Your task to perform on an android device: check battery use Image 0: 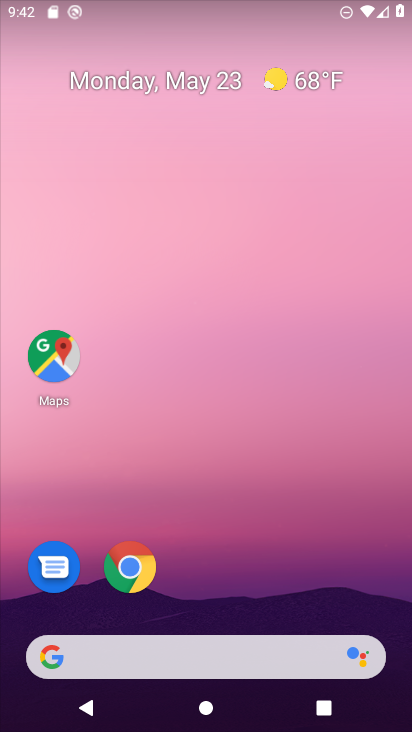
Step 0: drag from (193, 602) to (252, 71)
Your task to perform on an android device: check battery use Image 1: 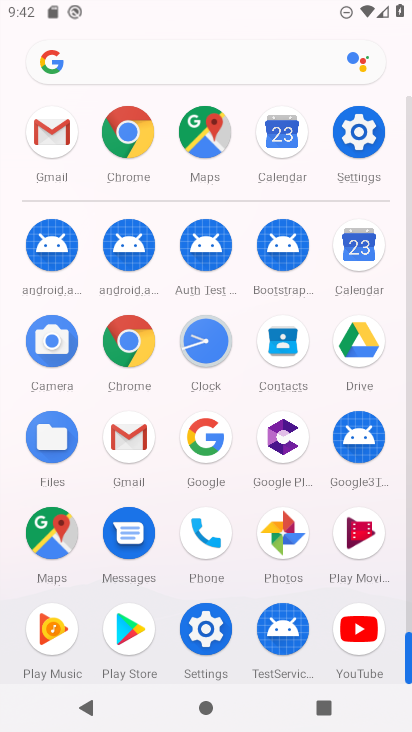
Step 1: click (350, 139)
Your task to perform on an android device: check battery use Image 2: 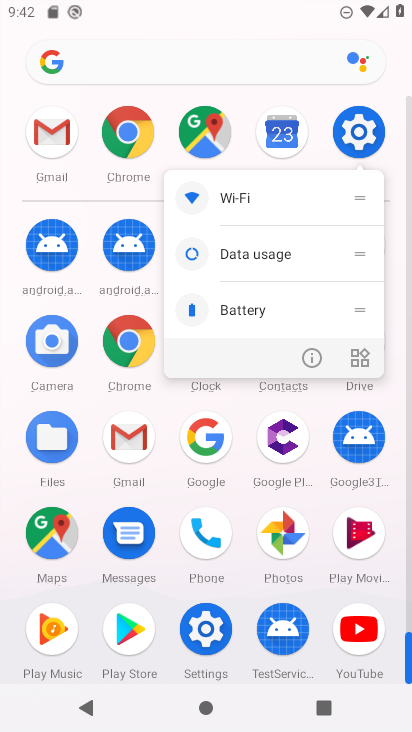
Step 2: click (306, 349)
Your task to perform on an android device: check battery use Image 3: 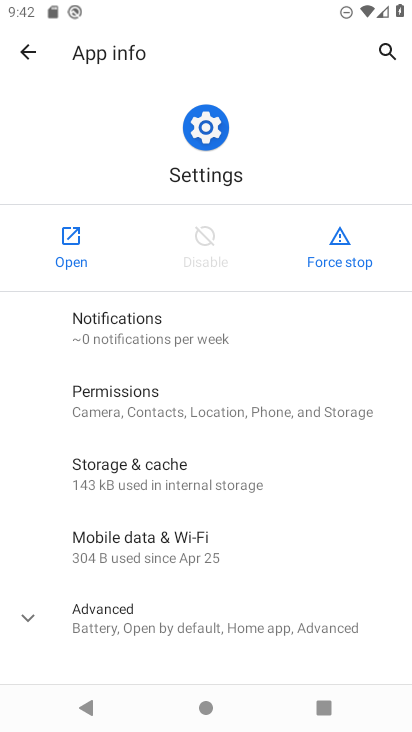
Step 3: click (87, 224)
Your task to perform on an android device: check battery use Image 4: 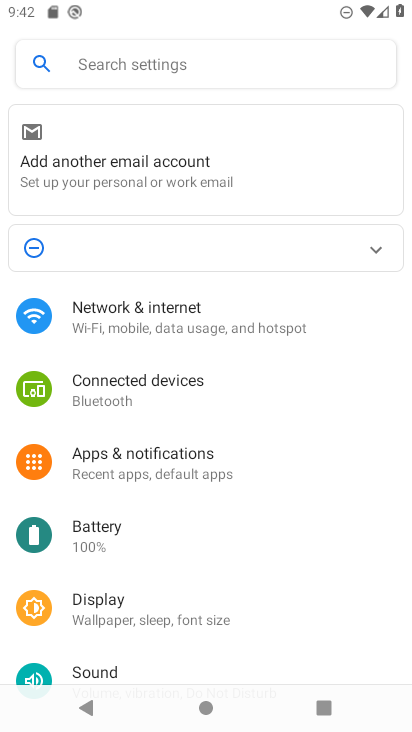
Step 4: click (115, 544)
Your task to perform on an android device: check battery use Image 5: 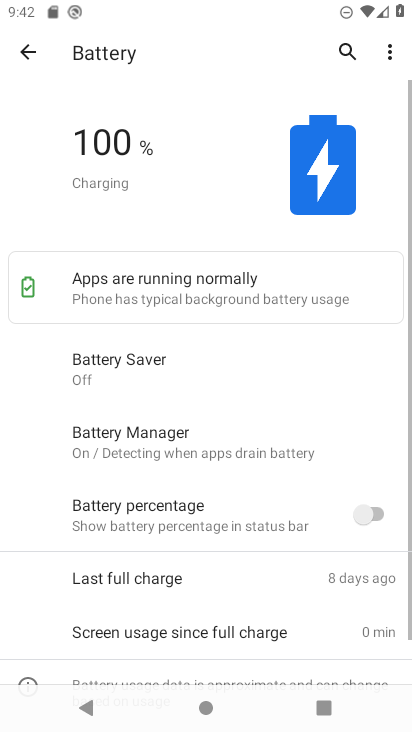
Step 5: drag from (187, 504) to (249, 118)
Your task to perform on an android device: check battery use Image 6: 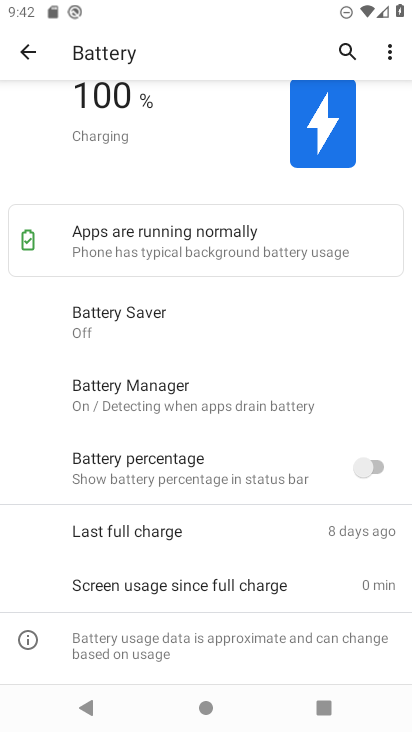
Step 6: drag from (297, 151) to (345, 510)
Your task to perform on an android device: check battery use Image 7: 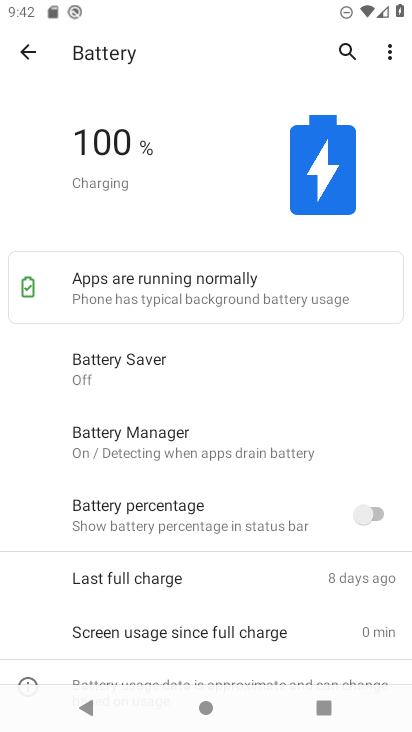
Step 7: click (395, 59)
Your task to perform on an android device: check battery use Image 8: 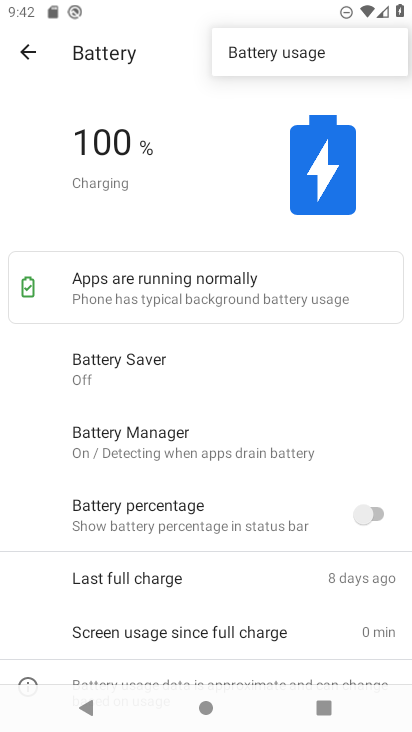
Step 8: click (263, 53)
Your task to perform on an android device: check battery use Image 9: 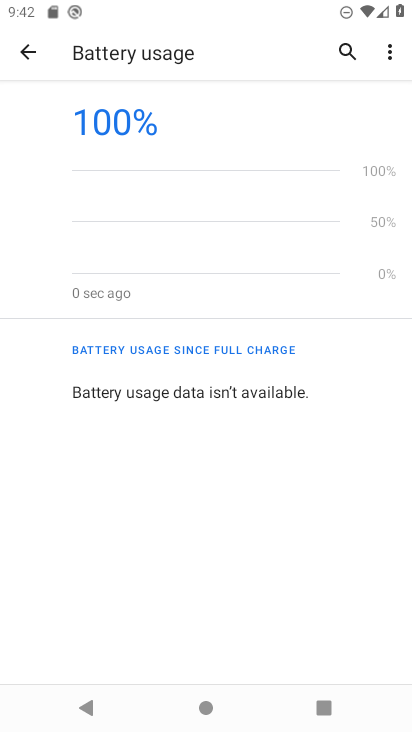
Step 9: task complete